Your task to perform on an android device: Check the weather Image 0: 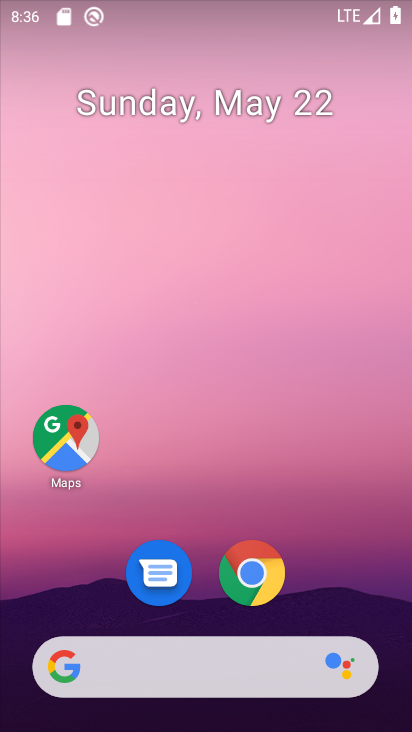
Step 0: click (310, 29)
Your task to perform on an android device: Check the weather Image 1: 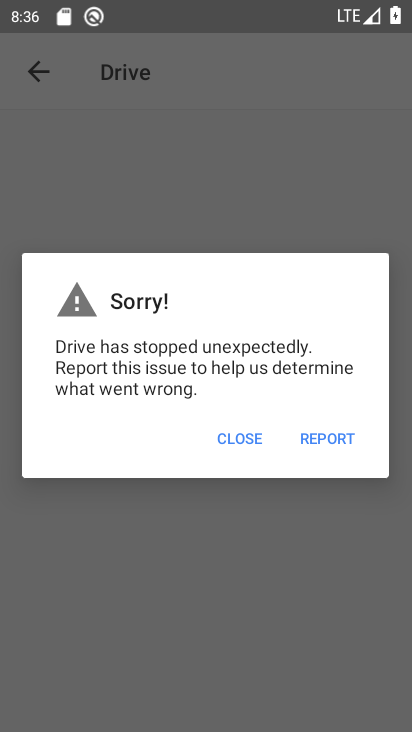
Step 1: press home button
Your task to perform on an android device: Check the weather Image 2: 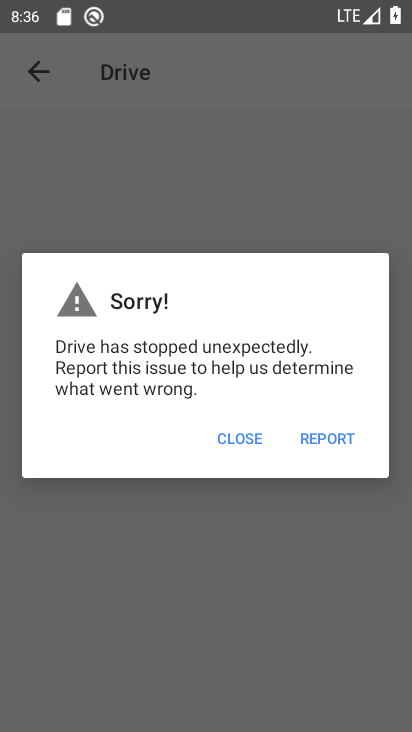
Step 2: press home button
Your task to perform on an android device: Check the weather Image 3: 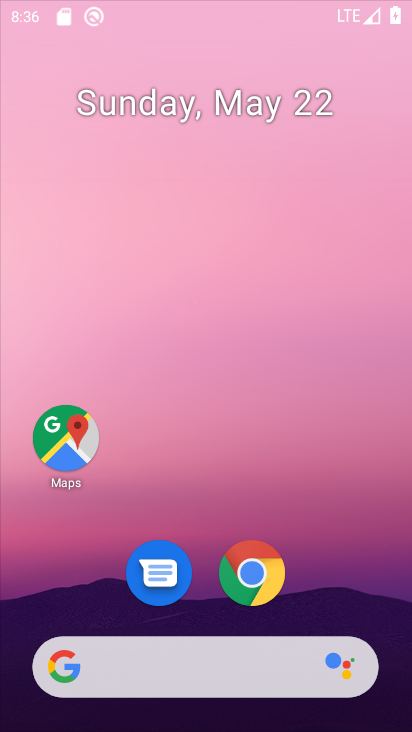
Step 3: press home button
Your task to perform on an android device: Check the weather Image 4: 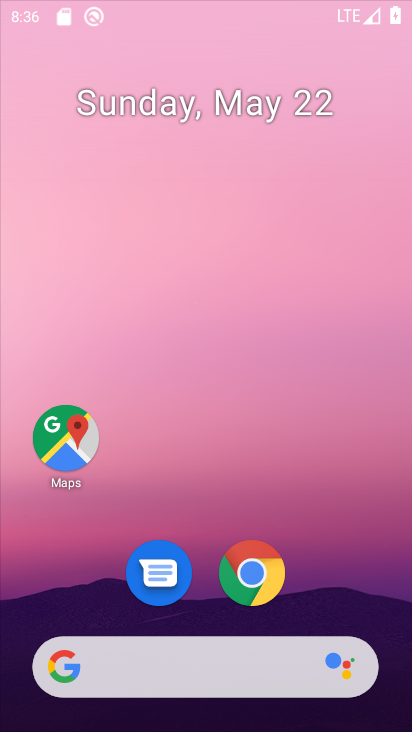
Step 4: drag from (180, 660) to (311, 15)
Your task to perform on an android device: Check the weather Image 5: 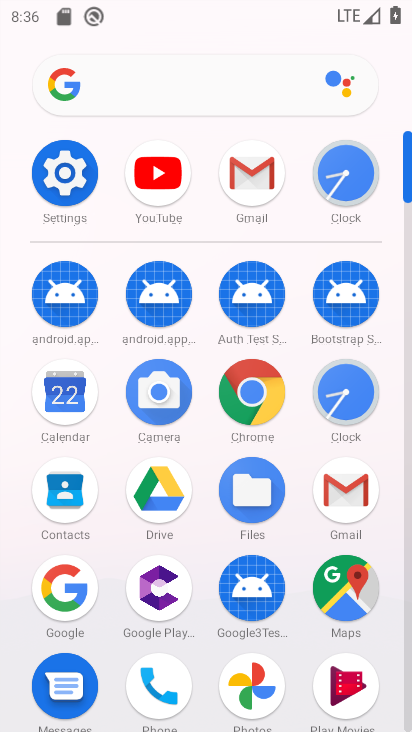
Step 5: click (153, 100)
Your task to perform on an android device: Check the weather Image 6: 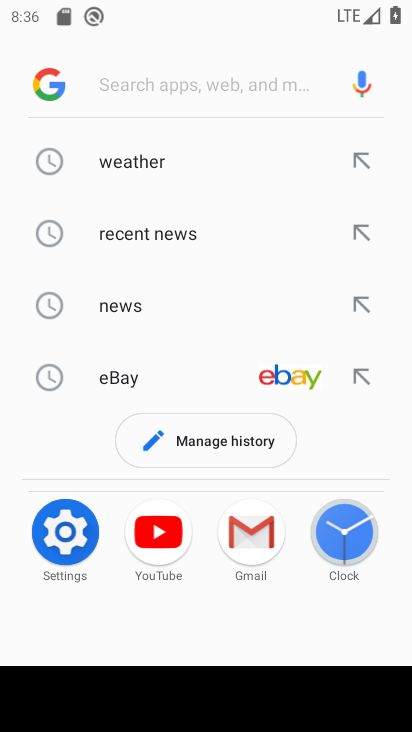
Step 6: click (134, 175)
Your task to perform on an android device: Check the weather Image 7: 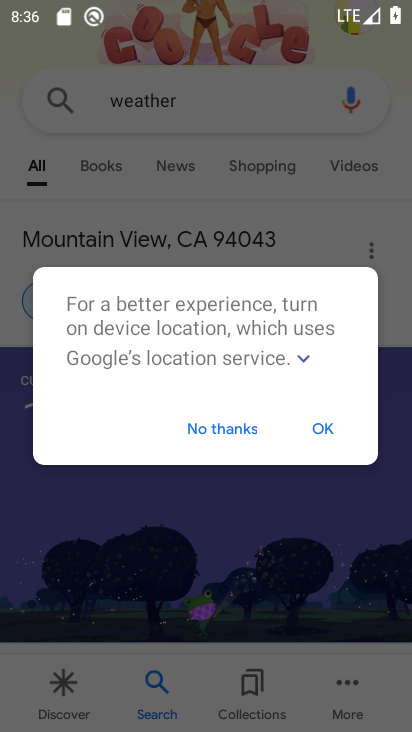
Step 7: click (327, 422)
Your task to perform on an android device: Check the weather Image 8: 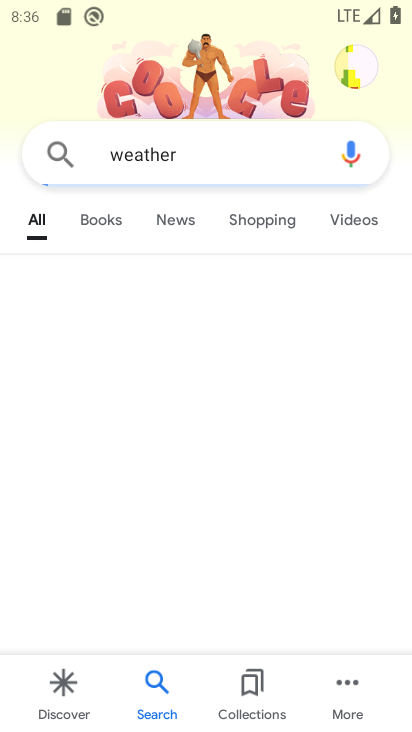
Step 8: task complete